Your task to perform on an android device: Search for Italian restaurants on Maps Image 0: 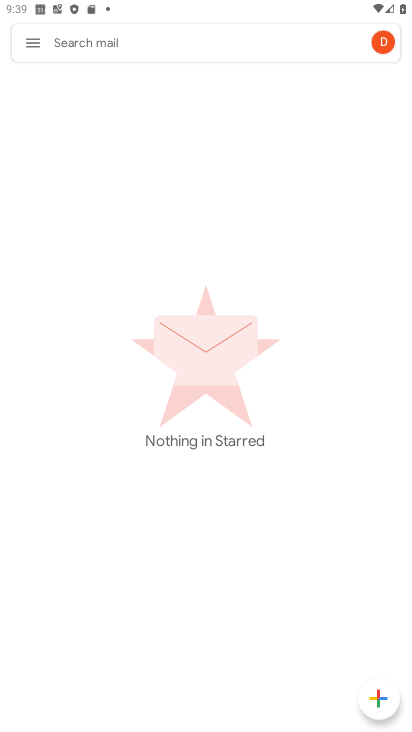
Step 0: press home button
Your task to perform on an android device: Search for Italian restaurants on Maps Image 1: 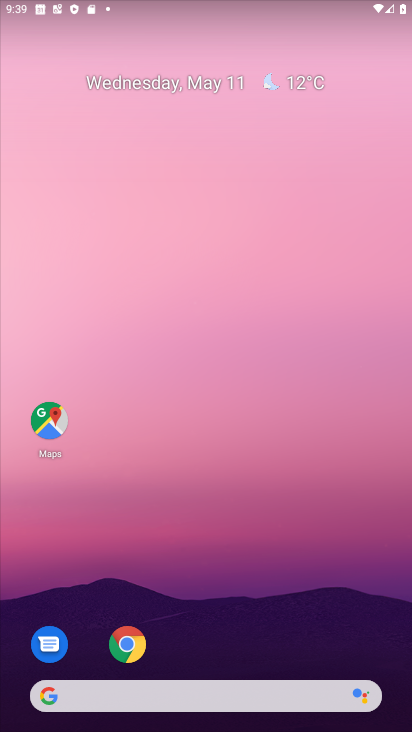
Step 1: drag from (259, 632) to (254, 199)
Your task to perform on an android device: Search for Italian restaurants on Maps Image 2: 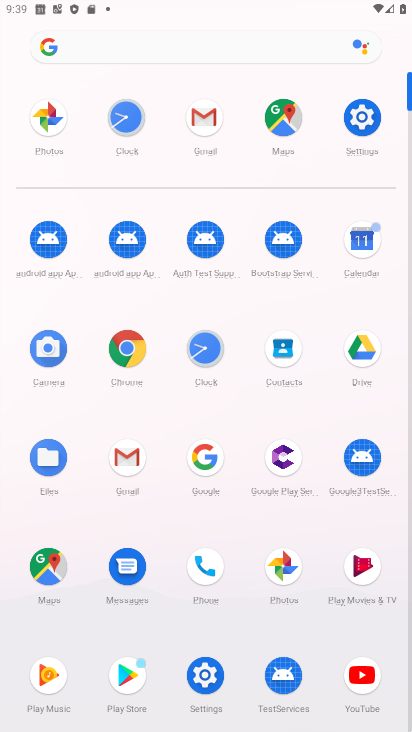
Step 2: click (61, 571)
Your task to perform on an android device: Search for Italian restaurants on Maps Image 3: 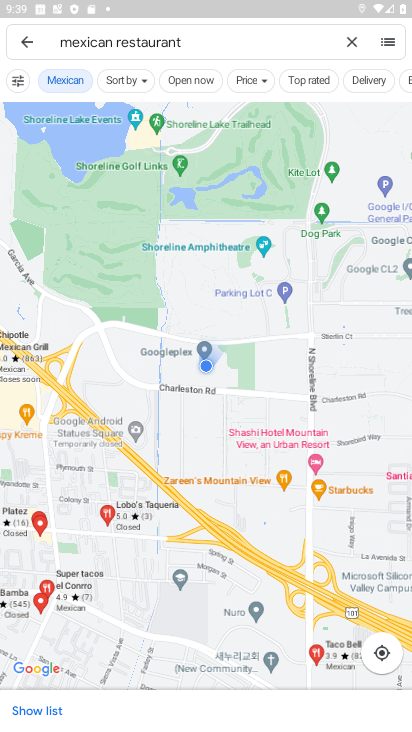
Step 3: click (341, 38)
Your task to perform on an android device: Search for Italian restaurants on Maps Image 4: 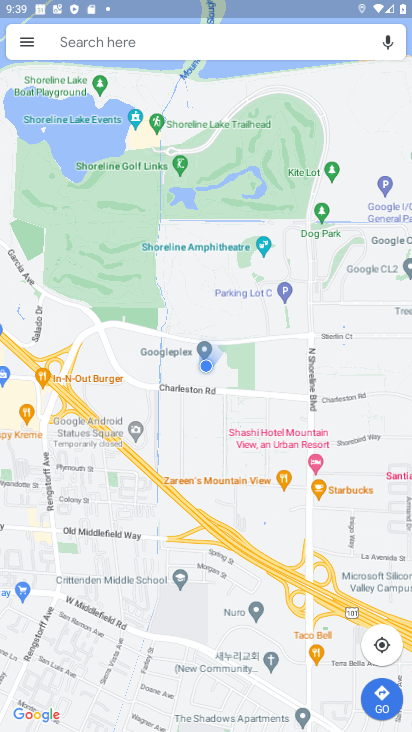
Step 4: click (292, 40)
Your task to perform on an android device: Search for Italian restaurants on Maps Image 5: 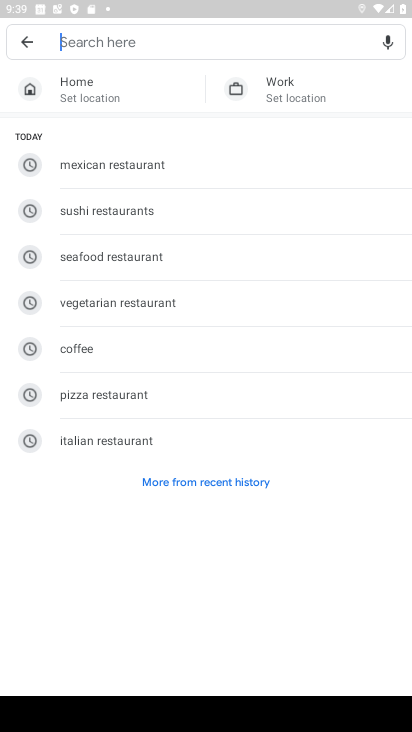
Step 5: click (148, 436)
Your task to perform on an android device: Search for Italian restaurants on Maps Image 6: 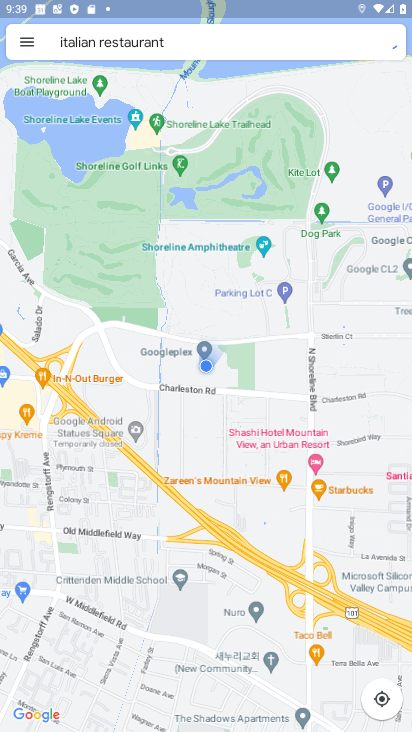
Step 6: task complete